Your task to perform on an android device: install app "HBO Max: Stream TV & Movies" Image 0: 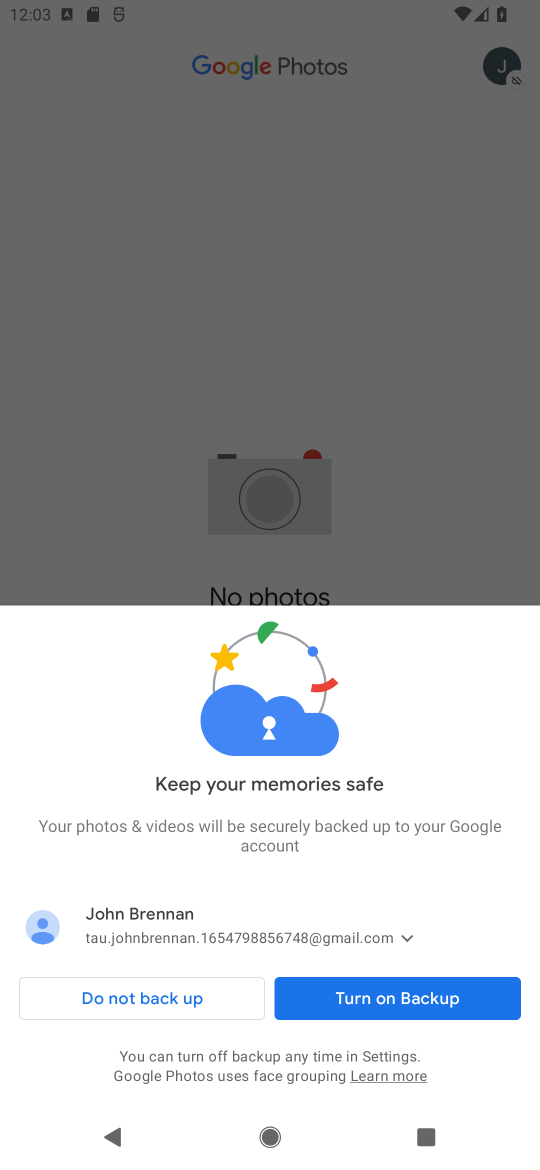
Step 0: press home button
Your task to perform on an android device: install app "HBO Max: Stream TV & Movies" Image 1: 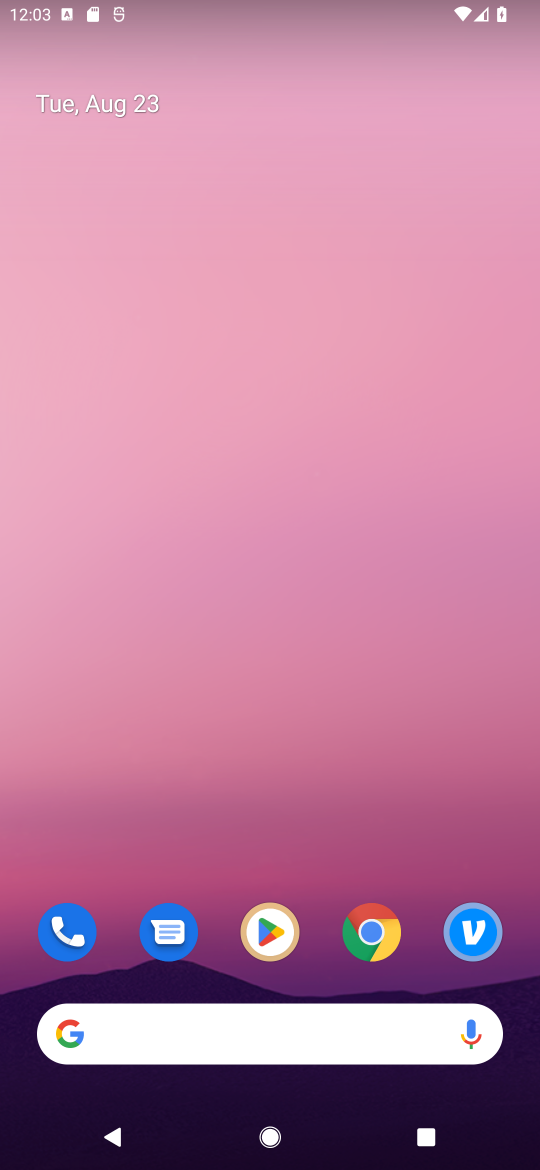
Step 1: click (274, 934)
Your task to perform on an android device: install app "HBO Max: Stream TV & Movies" Image 2: 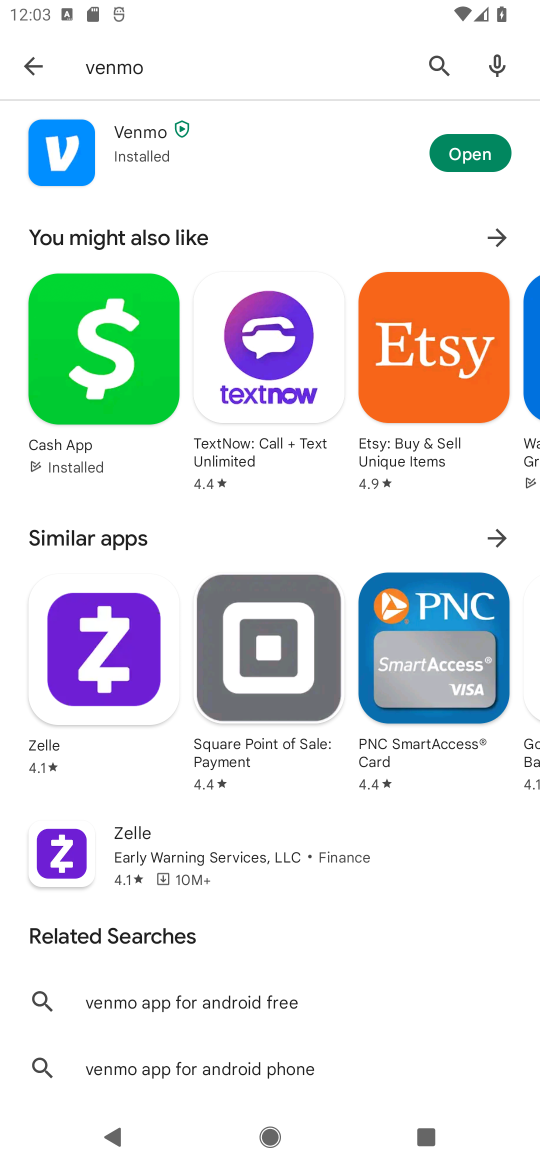
Step 2: click (429, 57)
Your task to perform on an android device: install app "HBO Max: Stream TV & Movies" Image 3: 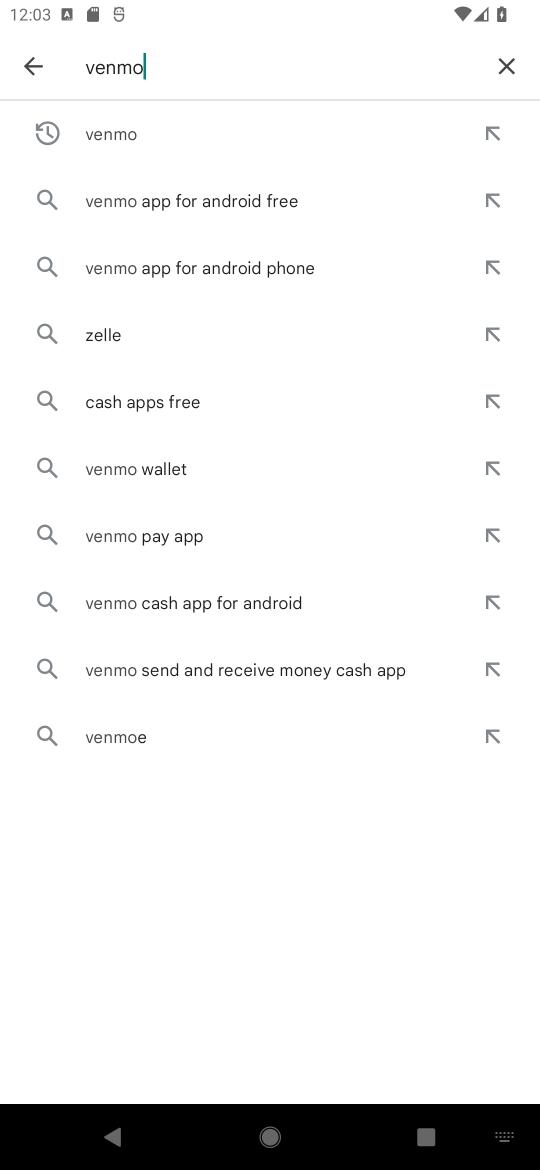
Step 3: click (500, 63)
Your task to perform on an android device: install app "HBO Max: Stream TV & Movies" Image 4: 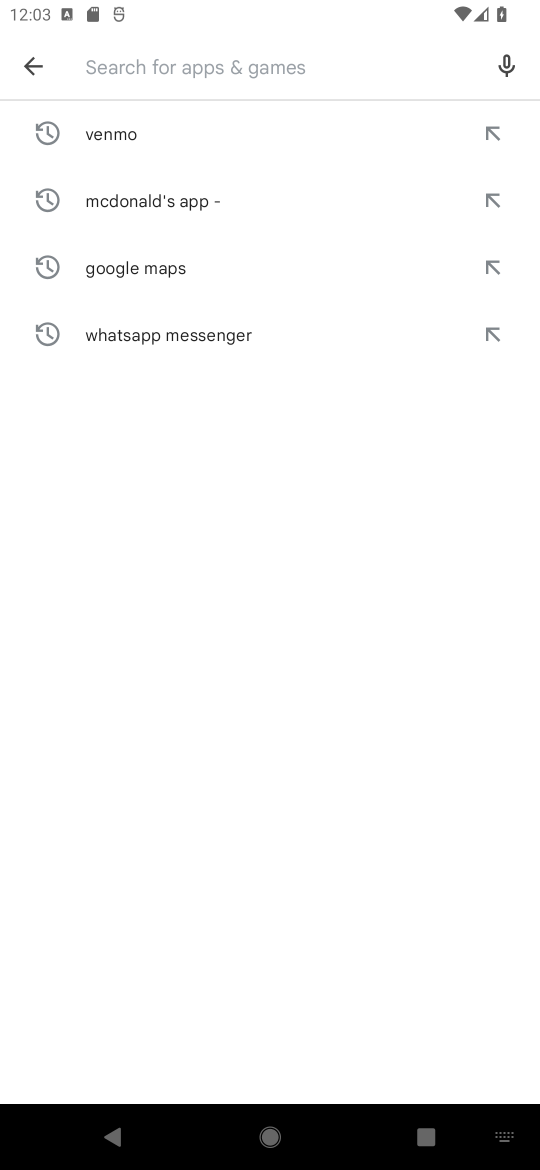
Step 4: click (187, 59)
Your task to perform on an android device: install app "HBO Max: Stream TV & Movies" Image 5: 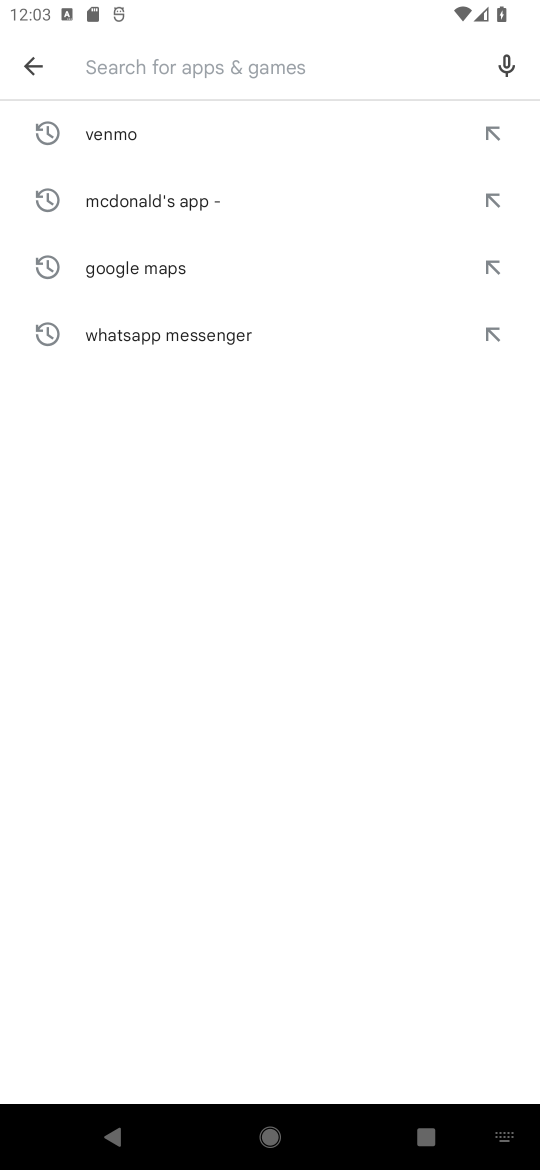
Step 5: type "hbo"
Your task to perform on an android device: install app "HBO Max: Stream TV & Movies" Image 6: 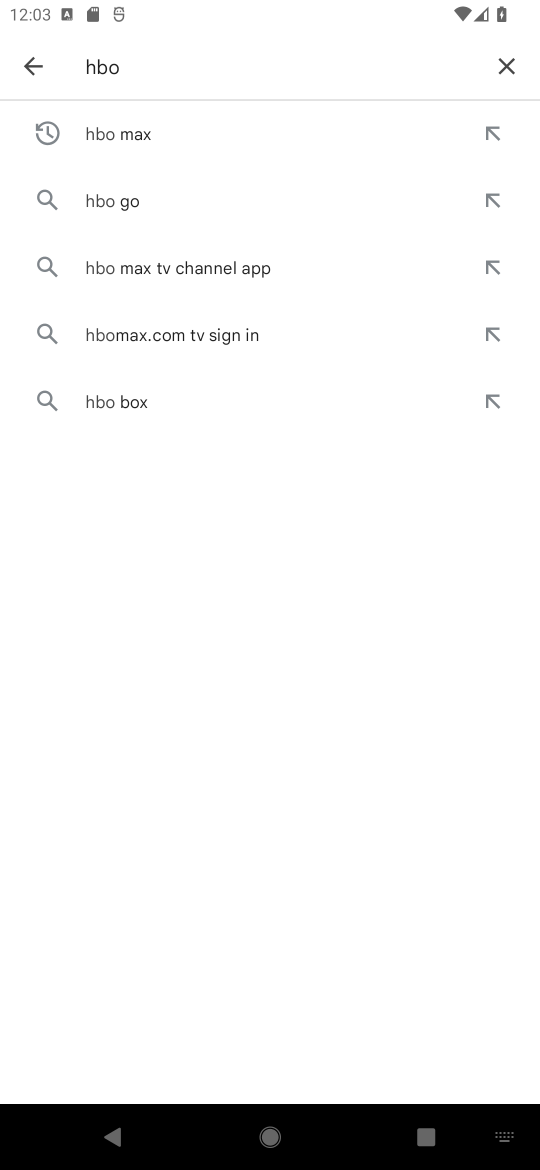
Step 6: click (144, 142)
Your task to perform on an android device: install app "HBO Max: Stream TV & Movies" Image 7: 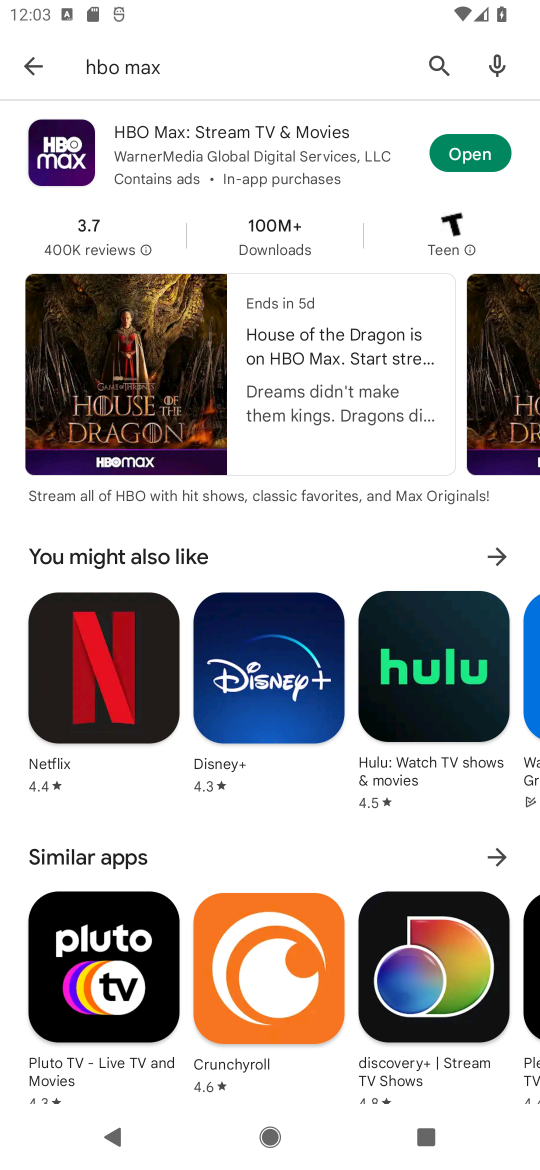
Step 7: click (241, 167)
Your task to perform on an android device: install app "HBO Max: Stream TV & Movies" Image 8: 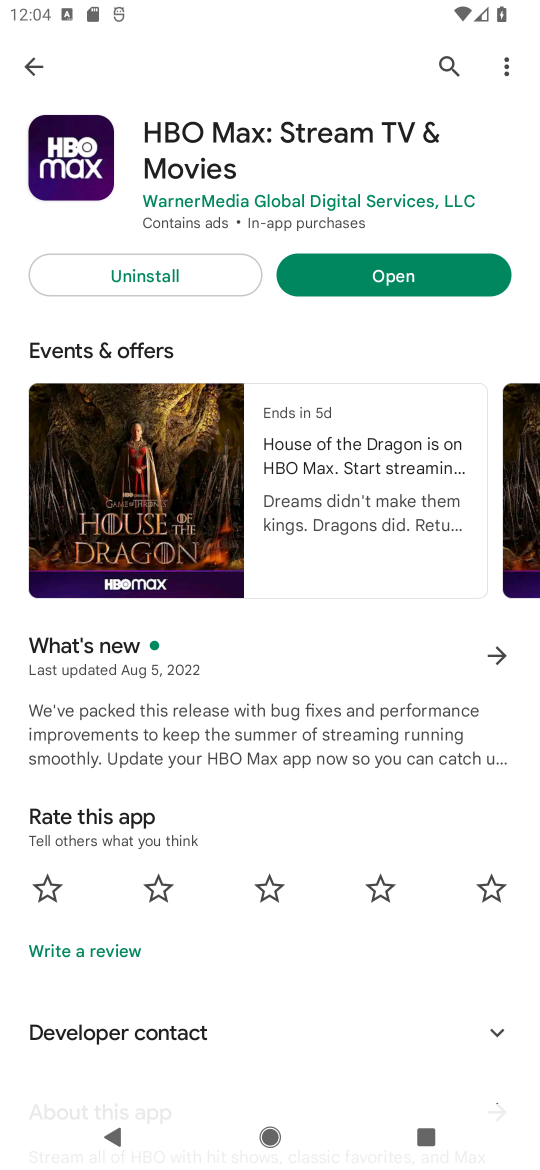
Step 8: task complete